Your task to perform on an android device: Search for vegetarian restaurants on Maps Image 0: 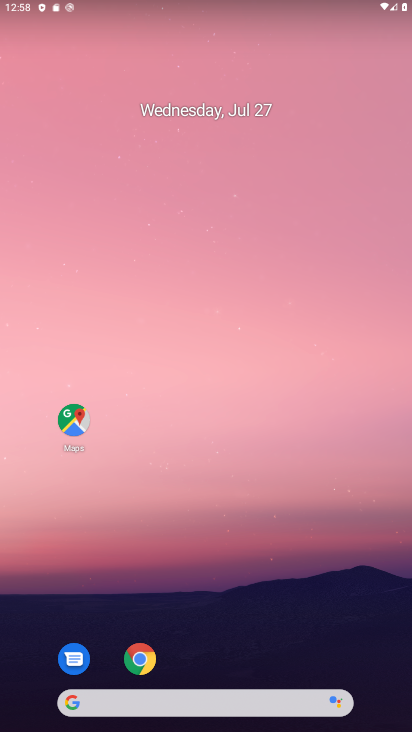
Step 0: press home button
Your task to perform on an android device: Search for vegetarian restaurants on Maps Image 1: 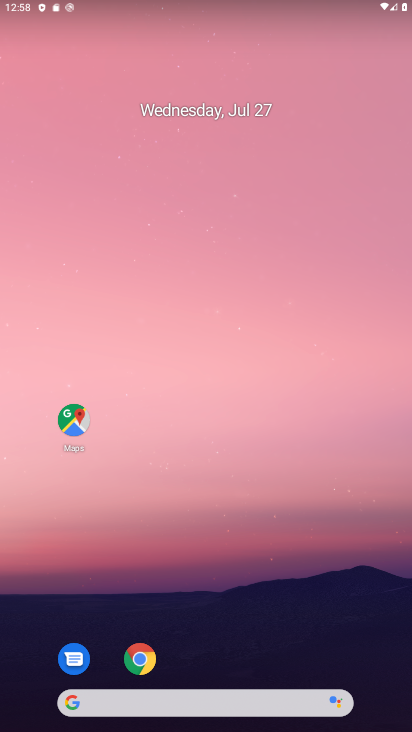
Step 1: press home button
Your task to perform on an android device: Search for vegetarian restaurants on Maps Image 2: 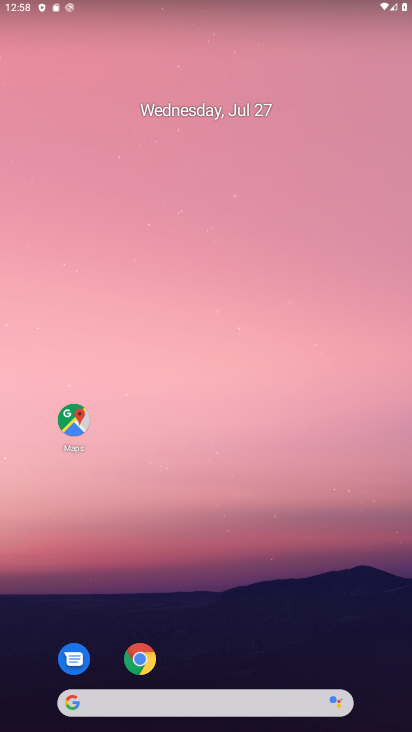
Step 2: press home button
Your task to perform on an android device: Search for vegetarian restaurants on Maps Image 3: 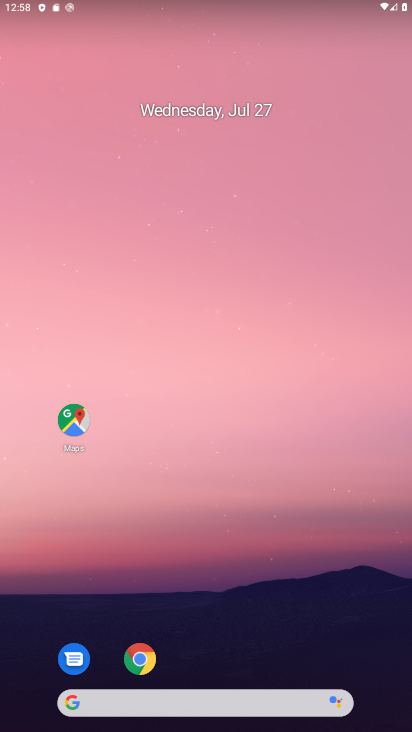
Step 3: click (142, 656)
Your task to perform on an android device: Search for vegetarian restaurants on Maps Image 4: 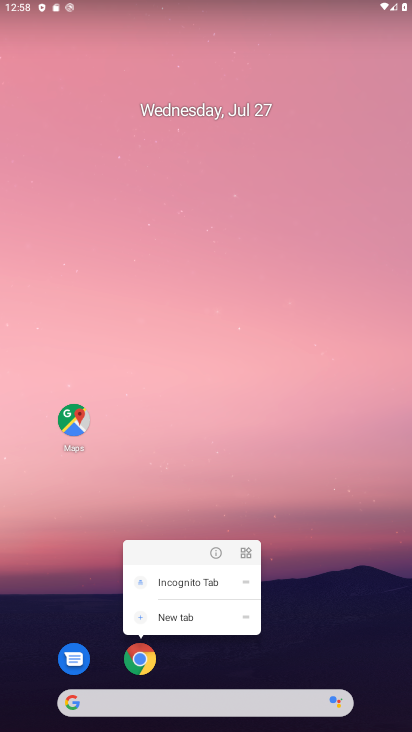
Step 4: click (141, 664)
Your task to perform on an android device: Search for vegetarian restaurants on Maps Image 5: 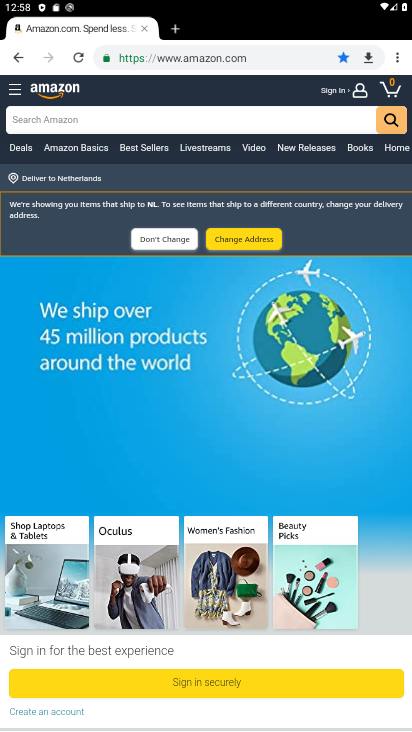
Step 5: click (203, 58)
Your task to perform on an android device: Search for vegetarian restaurants on Maps Image 6: 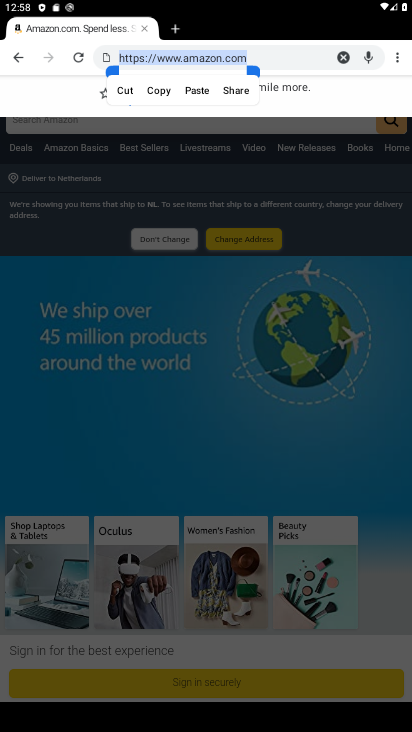
Step 6: press home button
Your task to perform on an android device: Search for vegetarian restaurants on Maps Image 7: 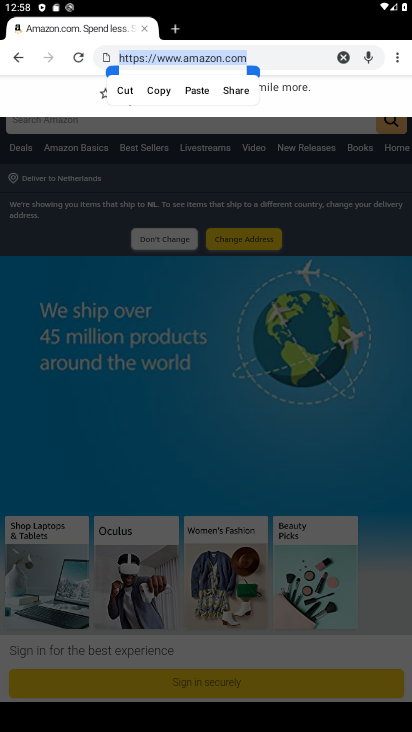
Step 7: drag from (248, 526) to (227, 2)
Your task to perform on an android device: Search for vegetarian restaurants on Maps Image 8: 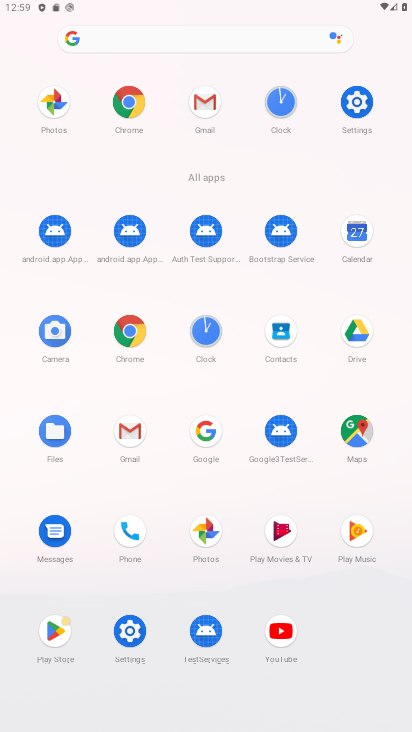
Step 8: click (369, 422)
Your task to perform on an android device: Search for vegetarian restaurants on Maps Image 9: 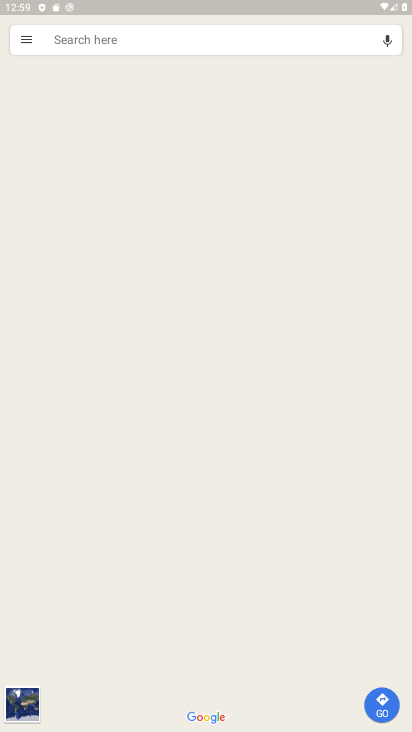
Step 9: drag from (115, 614) to (207, 685)
Your task to perform on an android device: Search for vegetarian restaurants on Maps Image 10: 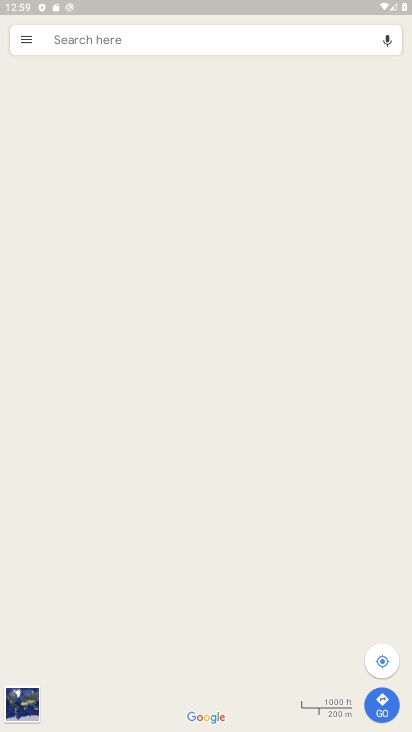
Step 10: click (52, 40)
Your task to perform on an android device: Search for vegetarian restaurants on Maps Image 11: 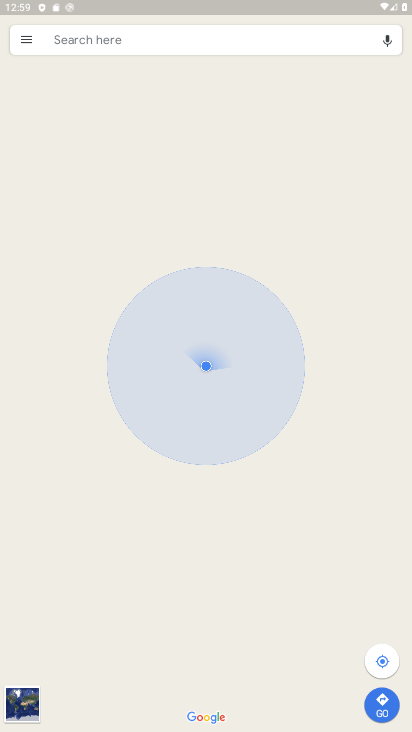
Step 11: click (117, 41)
Your task to perform on an android device: Search for vegetarian restaurants on Maps Image 12: 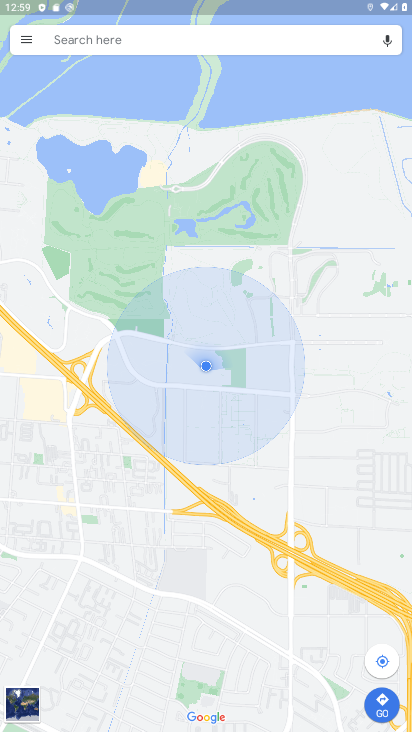
Step 12: click (166, 40)
Your task to perform on an android device: Search for vegetarian restaurants on Maps Image 13: 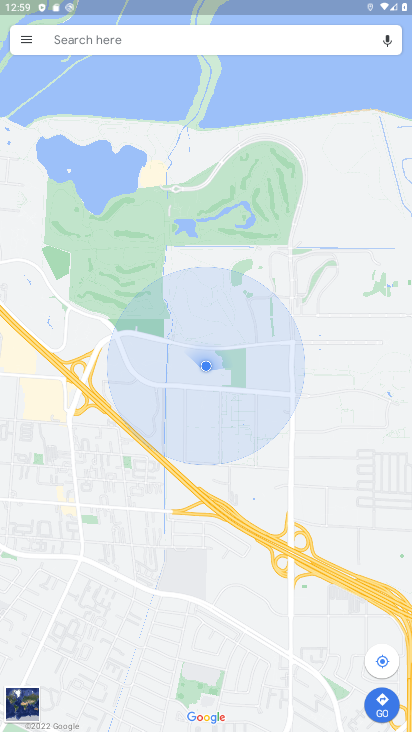
Step 13: click (166, 40)
Your task to perform on an android device: Search for vegetarian restaurants on Maps Image 14: 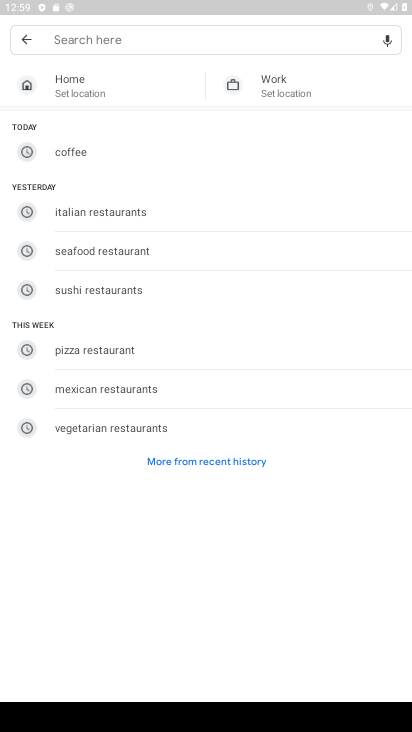
Step 14: type " vegetarian restaurants"
Your task to perform on an android device: Search for vegetarian restaurants on Maps Image 15: 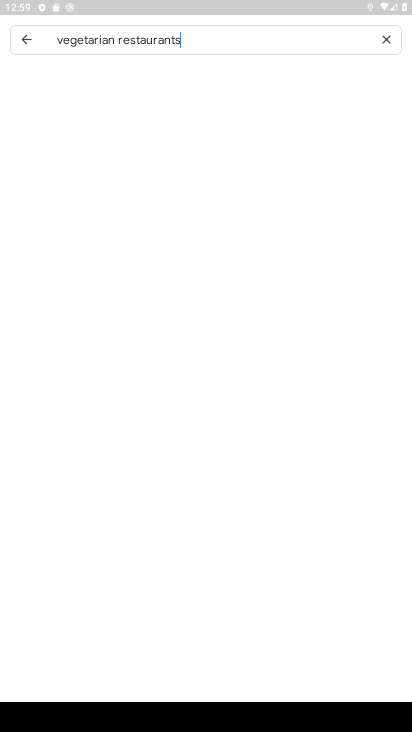
Step 15: type ""
Your task to perform on an android device: Search for vegetarian restaurants on Maps Image 16: 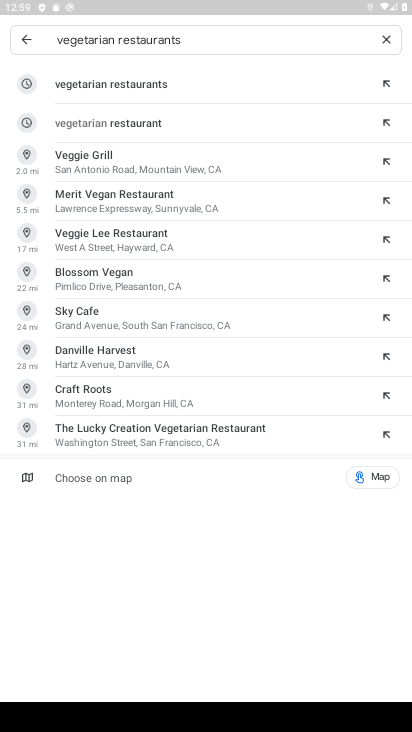
Step 16: click (115, 80)
Your task to perform on an android device: Search for vegetarian restaurants on Maps Image 17: 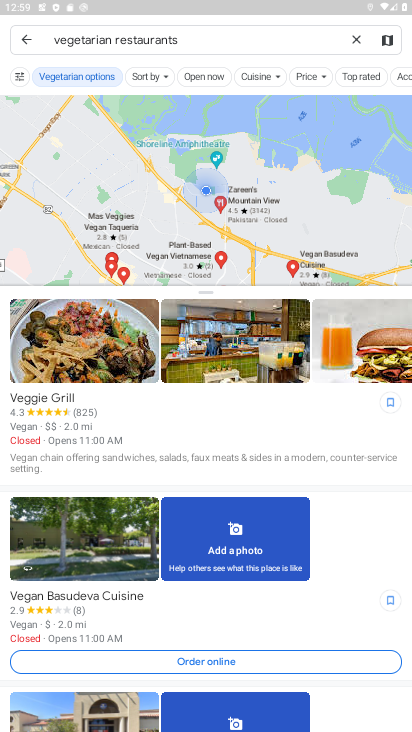
Step 17: task complete